Your task to perform on an android device: Open Google Chrome and click the shortcut for Amazon.com Image 0: 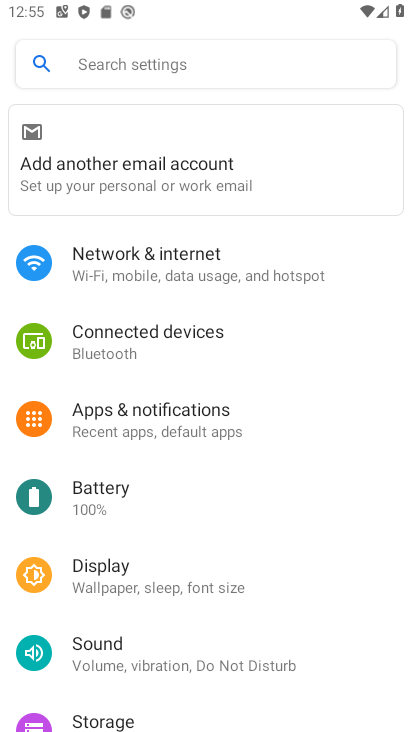
Step 0: task complete